Your task to perform on an android device: Go to Maps Image 0: 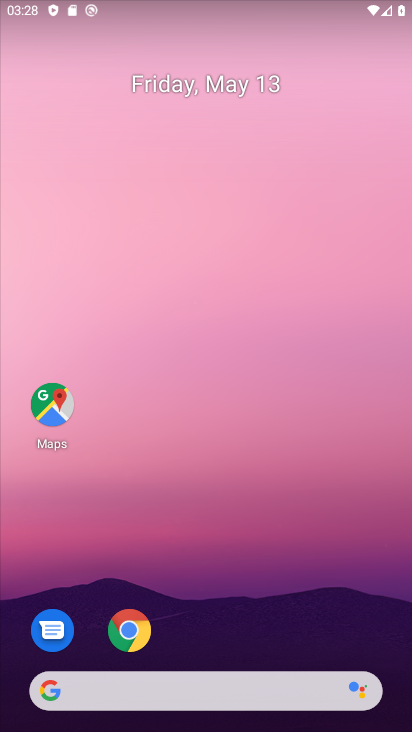
Step 0: click (45, 410)
Your task to perform on an android device: Go to Maps Image 1: 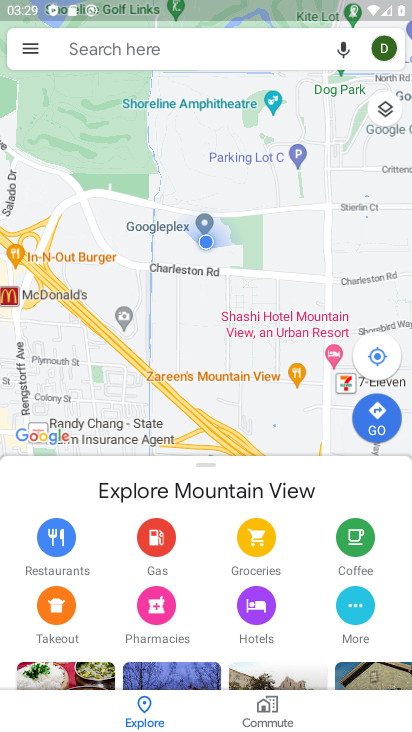
Step 1: task complete